Your task to perform on an android device: install app "Google Calendar" Image 0: 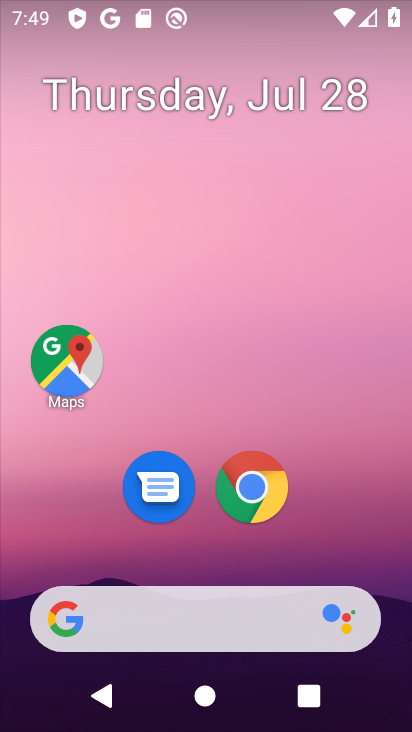
Step 0: drag from (212, 682) to (160, 250)
Your task to perform on an android device: install app "Google Calendar" Image 1: 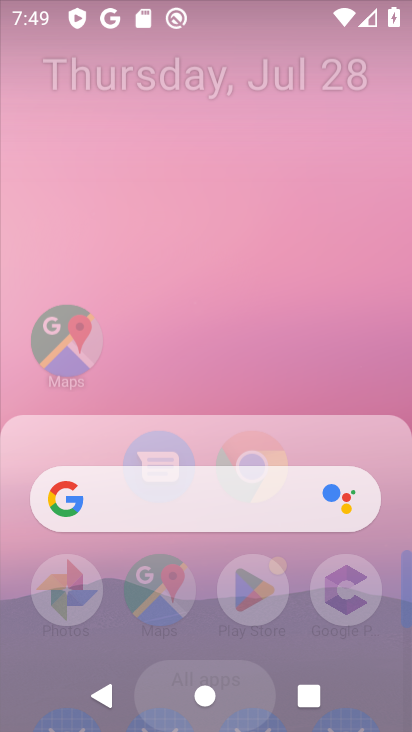
Step 1: drag from (223, 569) to (174, 168)
Your task to perform on an android device: install app "Google Calendar" Image 2: 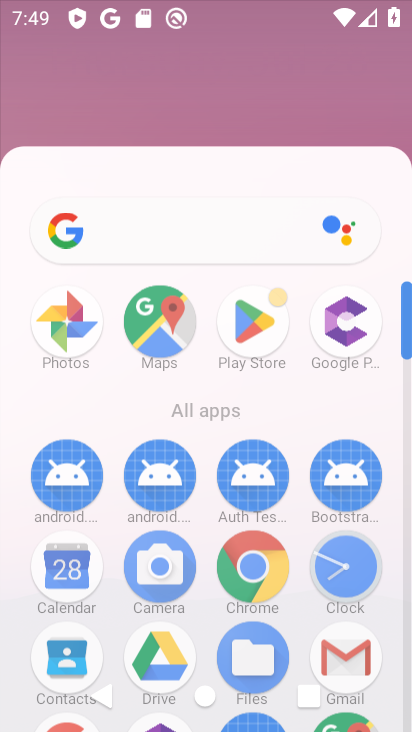
Step 2: drag from (214, 432) to (201, 116)
Your task to perform on an android device: install app "Google Calendar" Image 3: 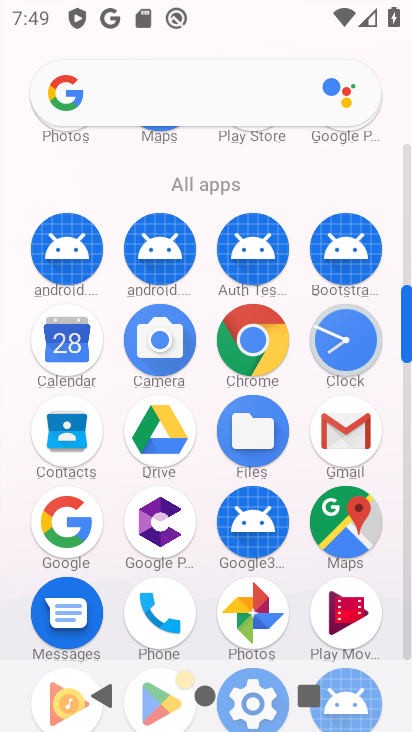
Step 3: drag from (194, 460) to (185, 30)
Your task to perform on an android device: install app "Google Calendar" Image 4: 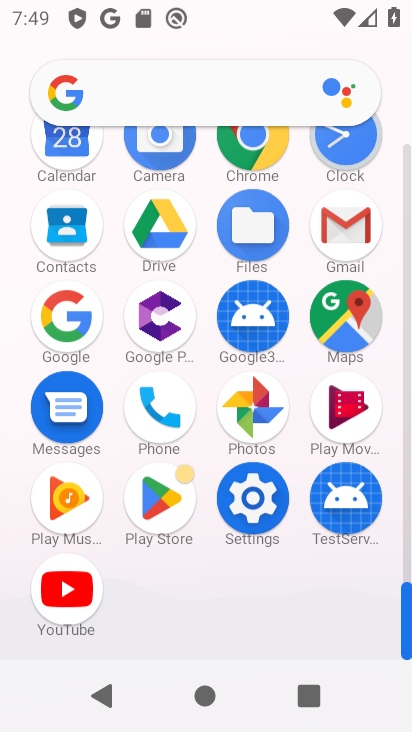
Step 4: drag from (187, 395) to (185, 118)
Your task to perform on an android device: install app "Google Calendar" Image 5: 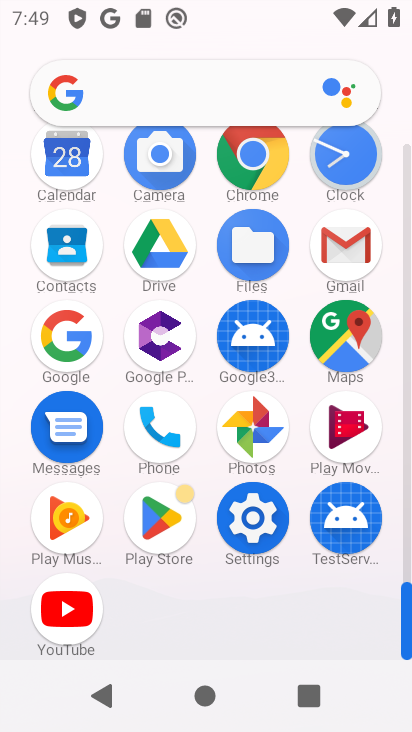
Step 5: click (63, 168)
Your task to perform on an android device: install app "Google Calendar" Image 6: 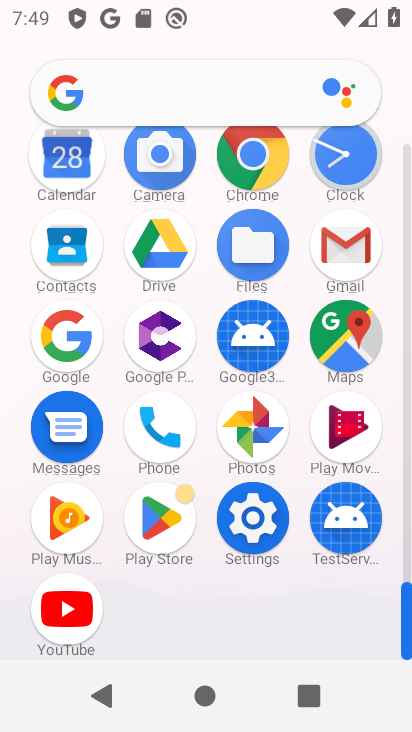
Step 6: click (63, 168)
Your task to perform on an android device: install app "Google Calendar" Image 7: 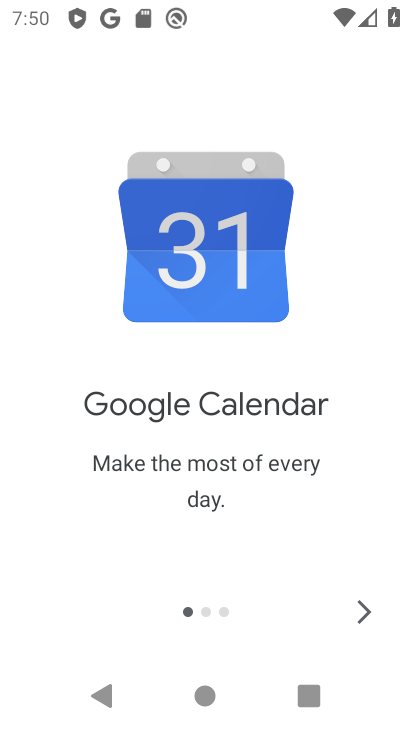
Step 7: click (360, 619)
Your task to perform on an android device: install app "Google Calendar" Image 8: 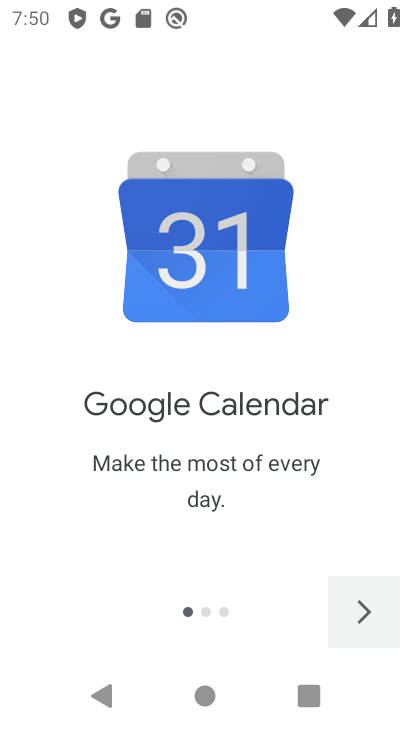
Step 8: click (360, 619)
Your task to perform on an android device: install app "Google Calendar" Image 9: 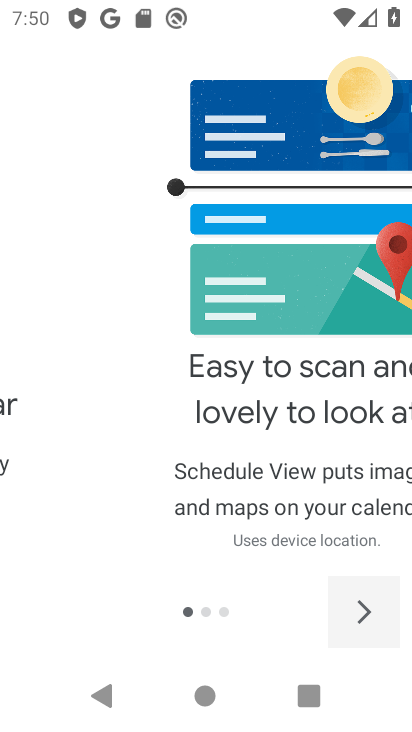
Step 9: click (359, 619)
Your task to perform on an android device: install app "Google Calendar" Image 10: 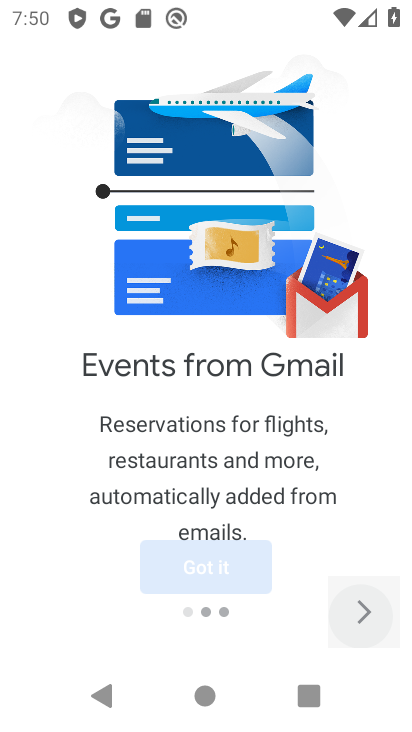
Step 10: click (359, 619)
Your task to perform on an android device: install app "Google Calendar" Image 11: 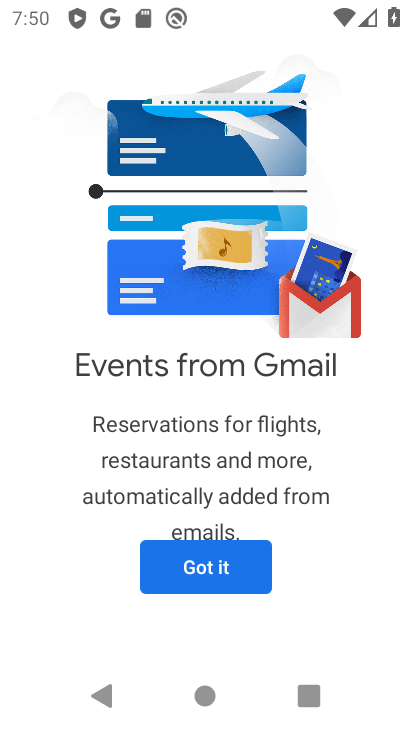
Step 11: press back button
Your task to perform on an android device: install app "Google Calendar" Image 12: 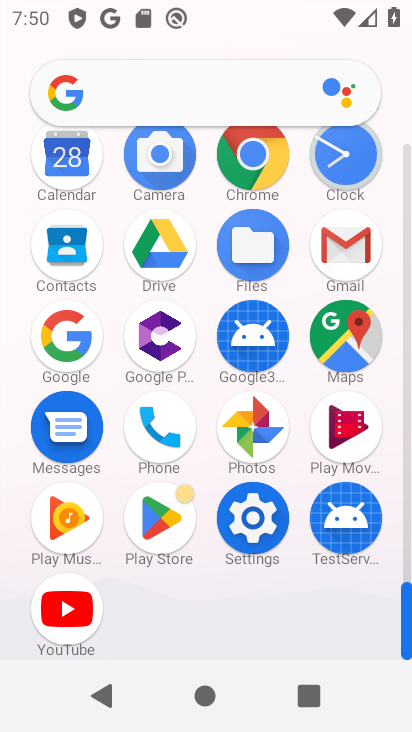
Step 12: drag from (197, 357) to (223, 545)
Your task to perform on an android device: install app "Google Calendar" Image 13: 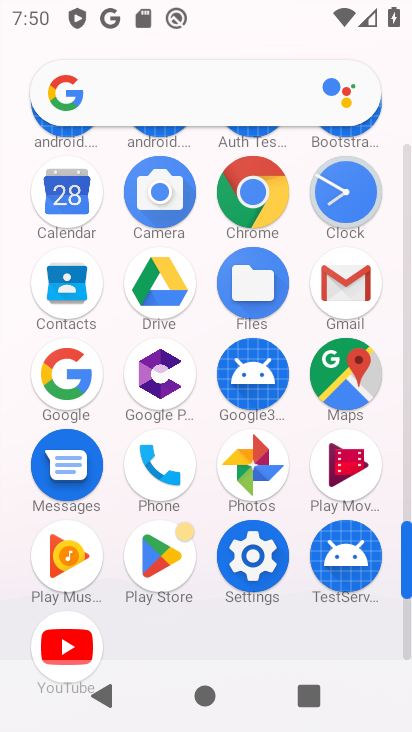
Step 13: drag from (141, 312) to (157, 428)
Your task to perform on an android device: install app "Google Calendar" Image 14: 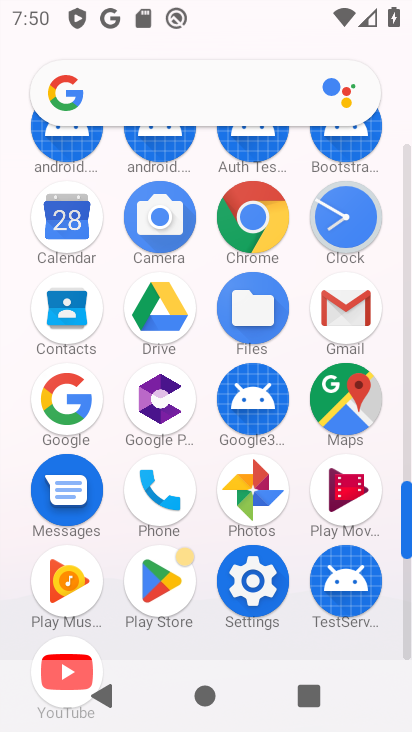
Step 14: drag from (164, 242) to (220, 524)
Your task to perform on an android device: install app "Google Calendar" Image 15: 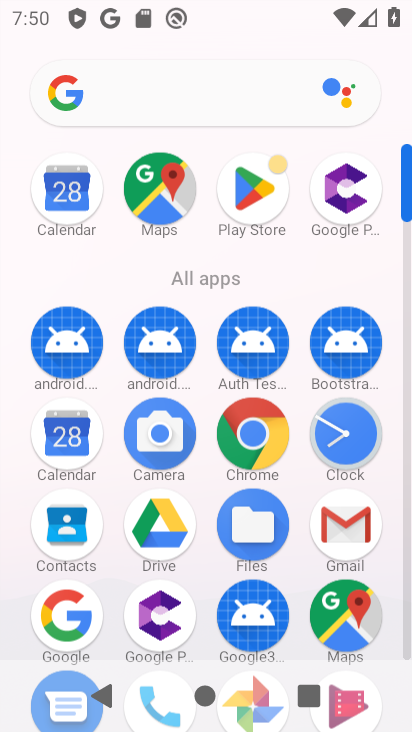
Step 15: drag from (190, 333) to (216, 487)
Your task to perform on an android device: install app "Google Calendar" Image 16: 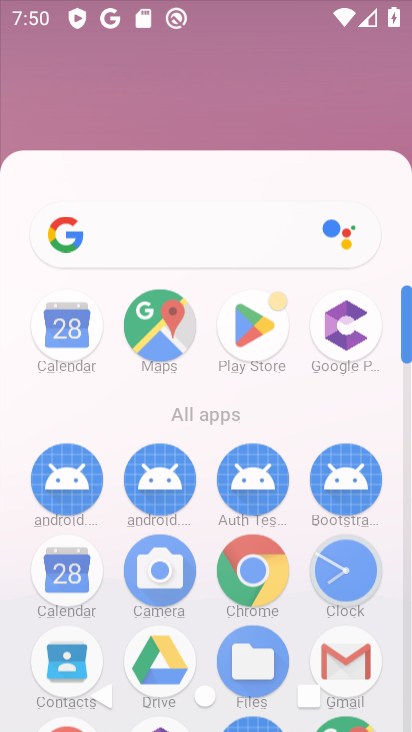
Step 16: drag from (190, 334) to (228, 521)
Your task to perform on an android device: install app "Google Calendar" Image 17: 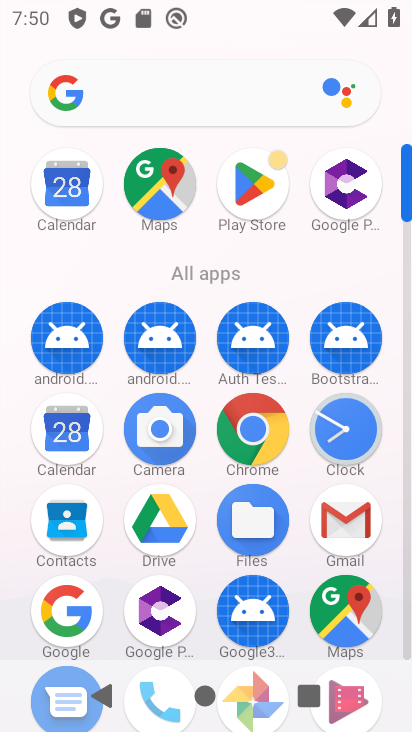
Step 17: click (241, 192)
Your task to perform on an android device: install app "Google Calendar" Image 18: 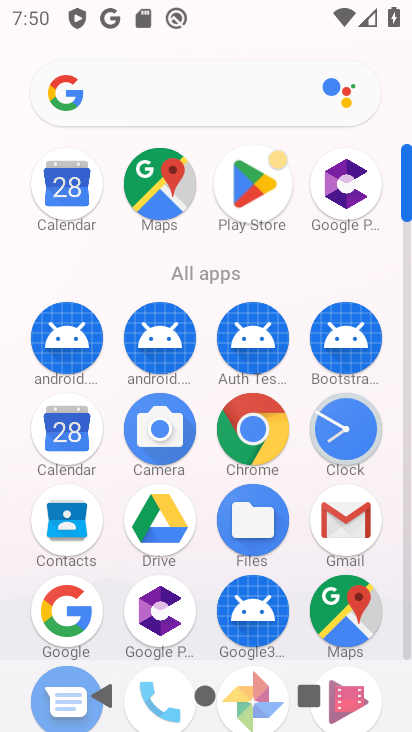
Step 18: click (241, 192)
Your task to perform on an android device: install app "Google Calendar" Image 19: 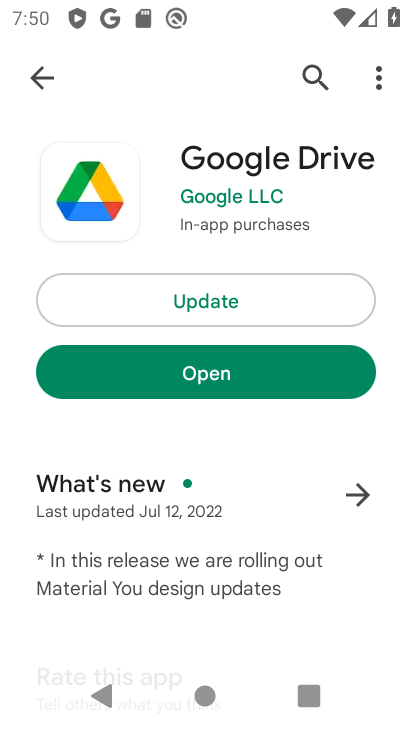
Step 19: click (31, 74)
Your task to perform on an android device: install app "Google Calendar" Image 20: 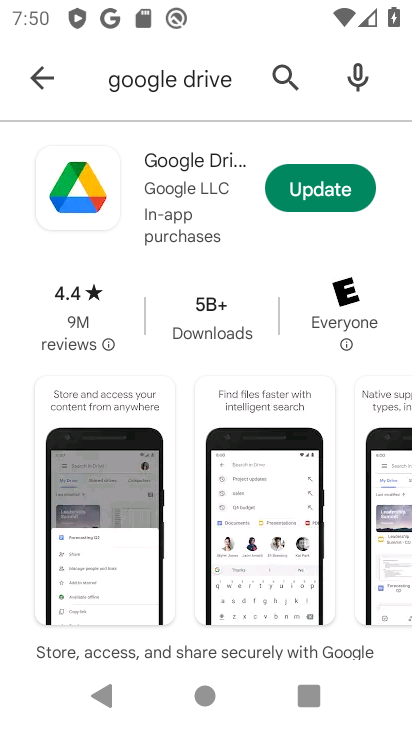
Step 20: click (226, 77)
Your task to perform on an android device: install app "Google Calendar" Image 21: 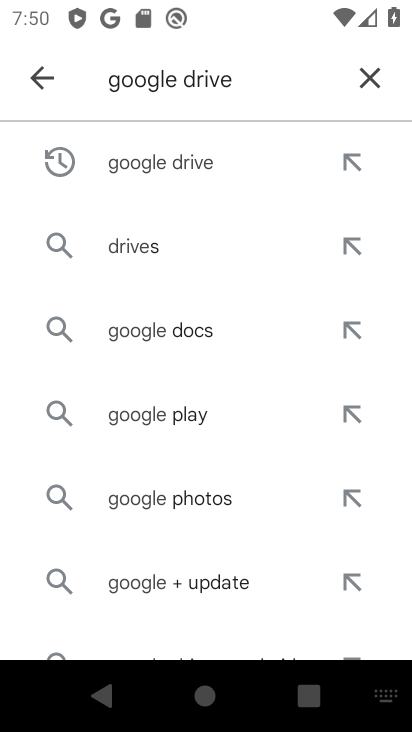
Step 21: click (370, 77)
Your task to perform on an android device: install app "Google Calendar" Image 22: 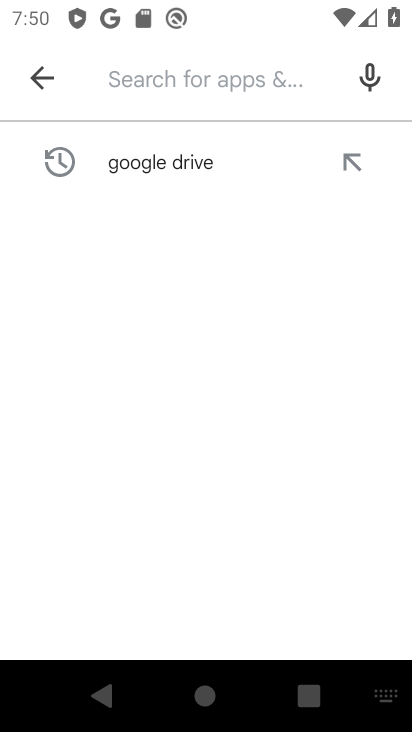
Step 22: type "Google calender"
Your task to perform on an android device: install app "Google Calendar" Image 23: 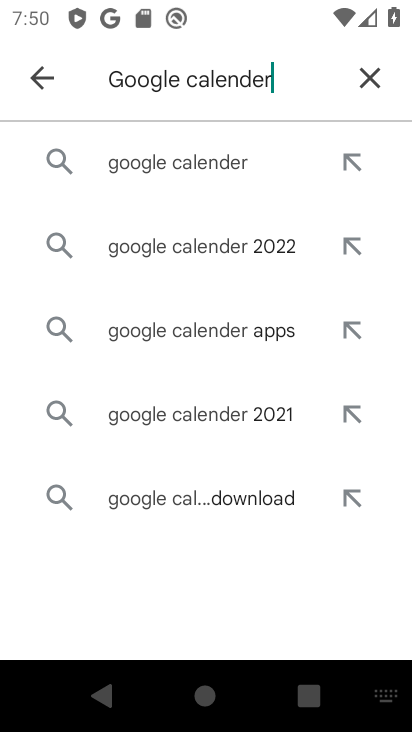
Step 23: click (215, 169)
Your task to perform on an android device: install app "Google Calendar" Image 24: 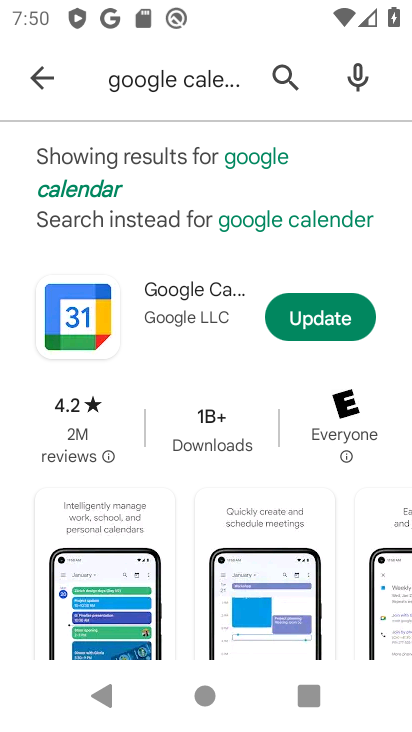
Step 24: click (319, 316)
Your task to perform on an android device: install app "Google Calendar" Image 25: 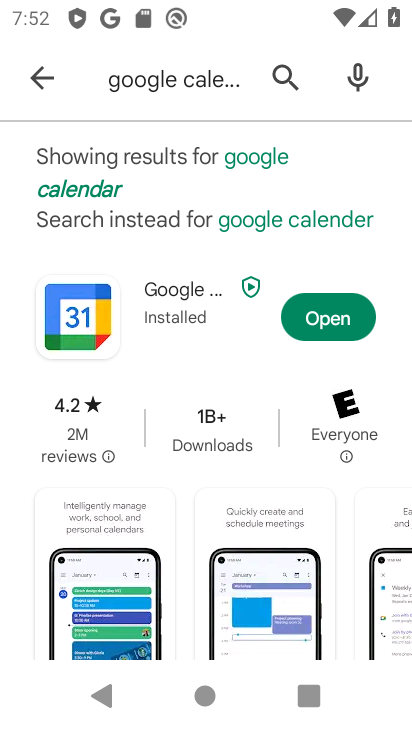
Step 25: click (325, 322)
Your task to perform on an android device: install app "Google Calendar" Image 26: 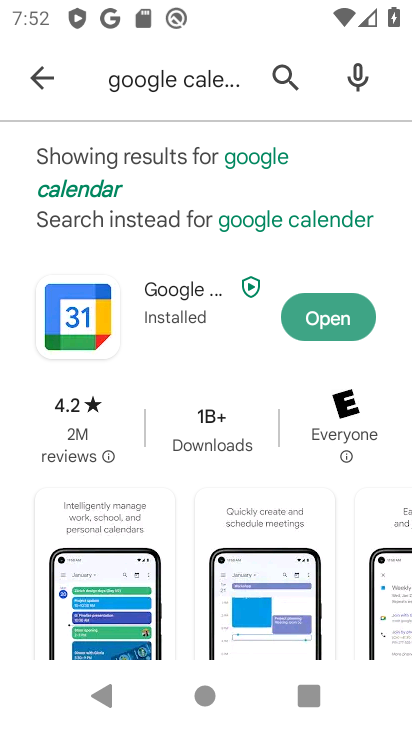
Step 26: click (325, 322)
Your task to perform on an android device: install app "Google Calendar" Image 27: 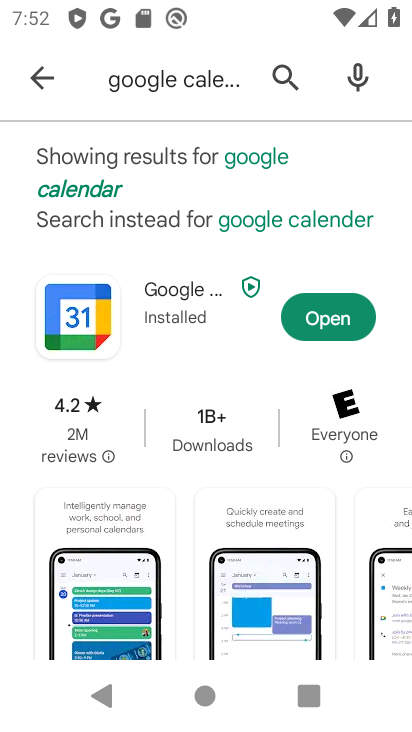
Step 27: click (325, 322)
Your task to perform on an android device: install app "Google Calendar" Image 28: 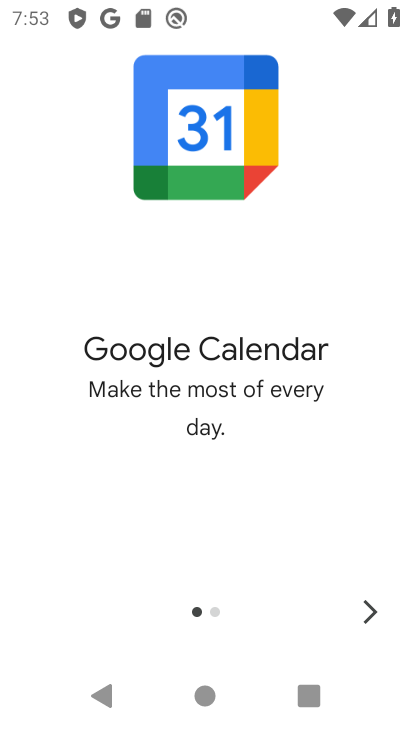
Step 28: click (372, 607)
Your task to perform on an android device: install app "Google Calendar" Image 29: 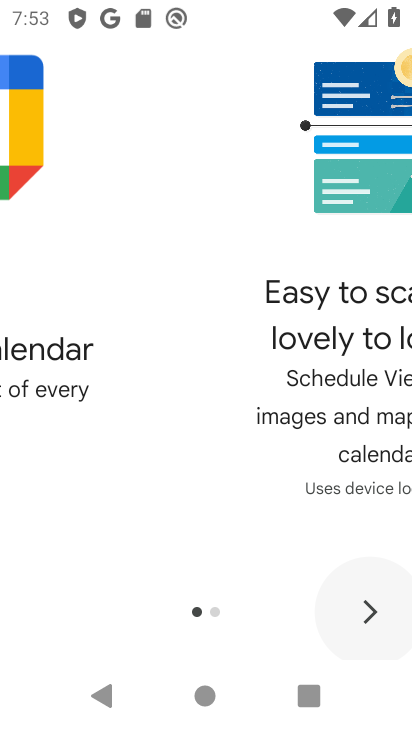
Step 29: click (376, 610)
Your task to perform on an android device: install app "Google Calendar" Image 30: 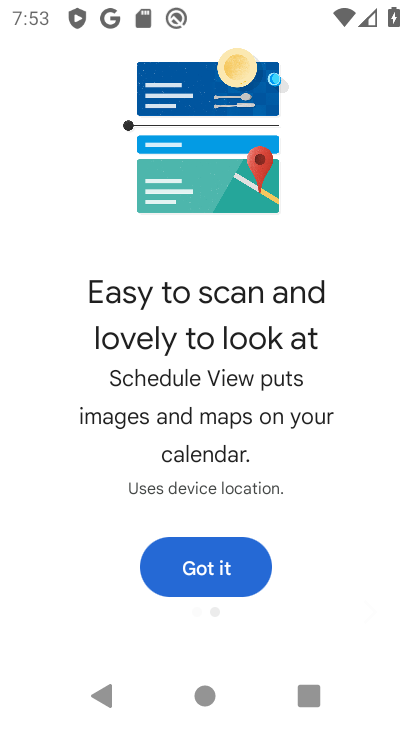
Step 30: click (377, 611)
Your task to perform on an android device: install app "Google Calendar" Image 31: 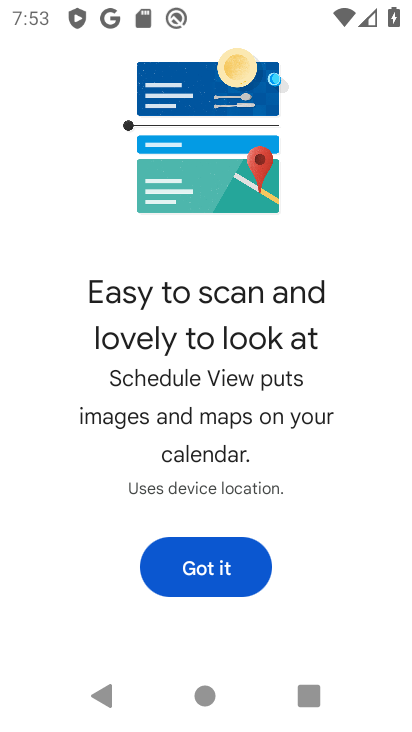
Step 31: task complete